Your task to perform on an android device: turn on bluetooth scan Image 0: 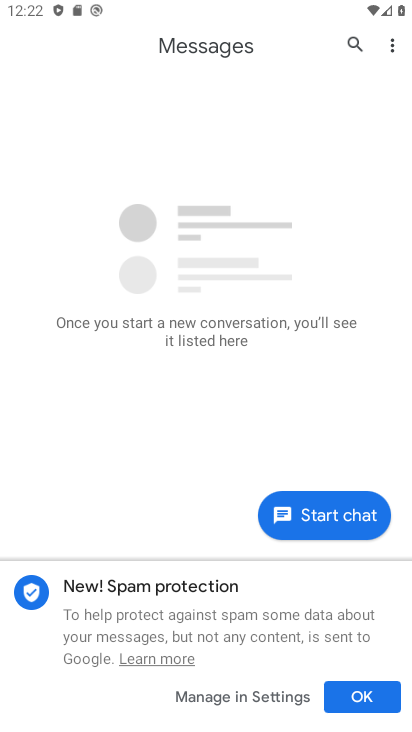
Step 0: press home button
Your task to perform on an android device: turn on bluetooth scan Image 1: 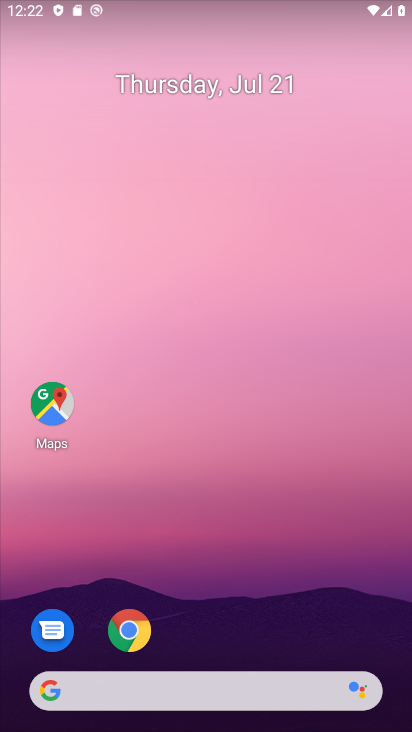
Step 1: drag from (204, 622) to (211, 141)
Your task to perform on an android device: turn on bluetooth scan Image 2: 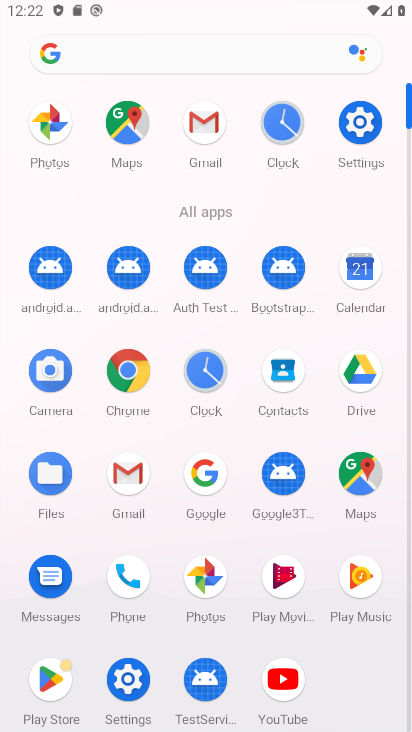
Step 2: click (364, 115)
Your task to perform on an android device: turn on bluetooth scan Image 3: 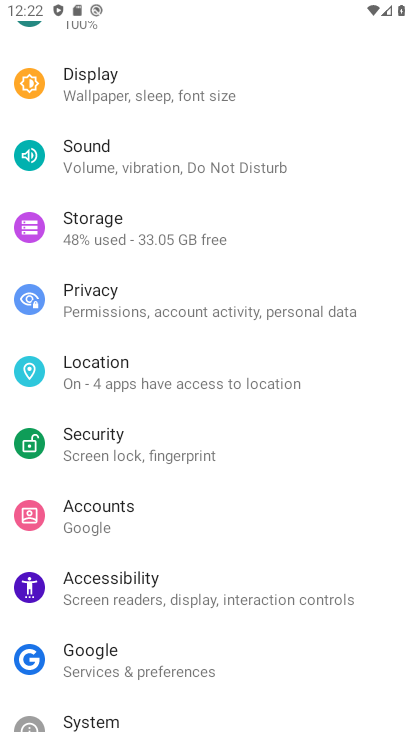
Step 3: click (104, 373)
Your task to perform on an android device: turn on bluetooth scan Image 4: 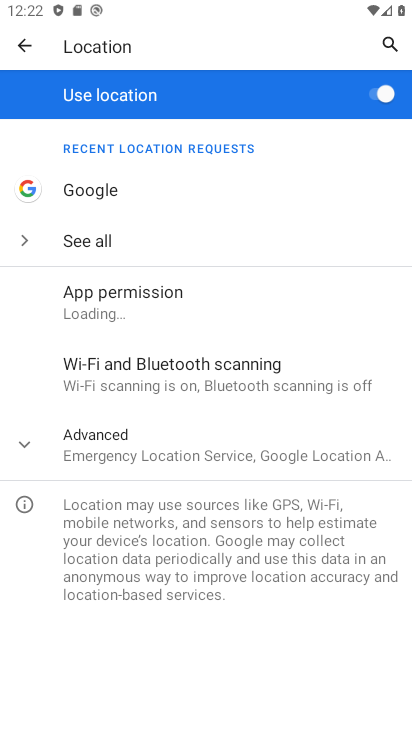
Step 4: click (125, 454)
Your task to perform on an android device: turn on bluetooth scan Image 5: 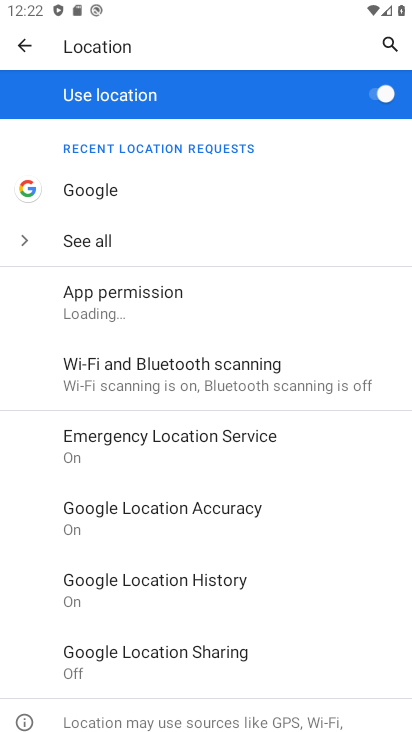
Step 5: click (225, 368)
Your task to perform on an android device: turn on bluetooth scan Image 6: 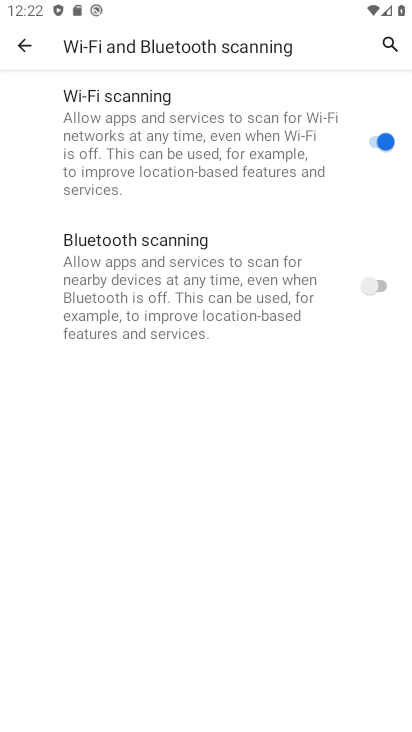
Step 6: click (374, 286)
Your task to perform on an android device: turn on bluetooth scan Image 7: 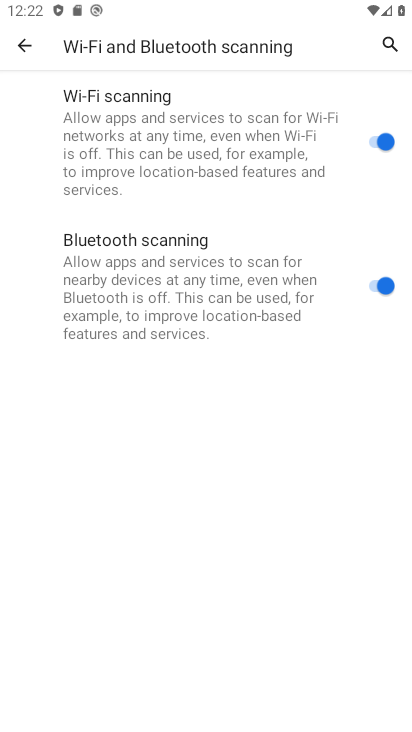
Step 7: task complete